Your task to perform on an android device: check out phone information Image 0: 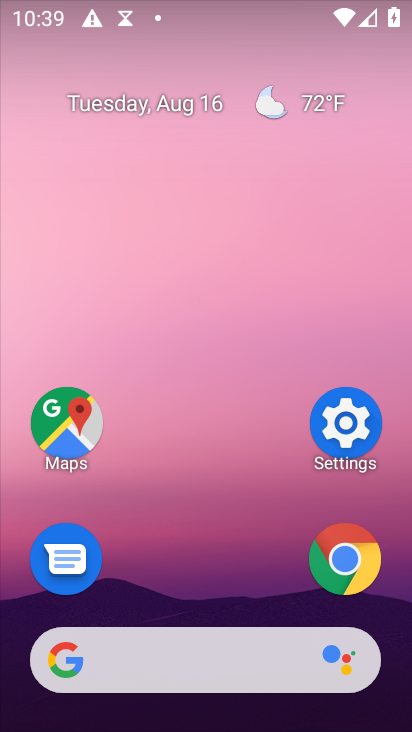
Step 0: click (344, 434)
Your task to perform on an android device: check out phone information Image 1: 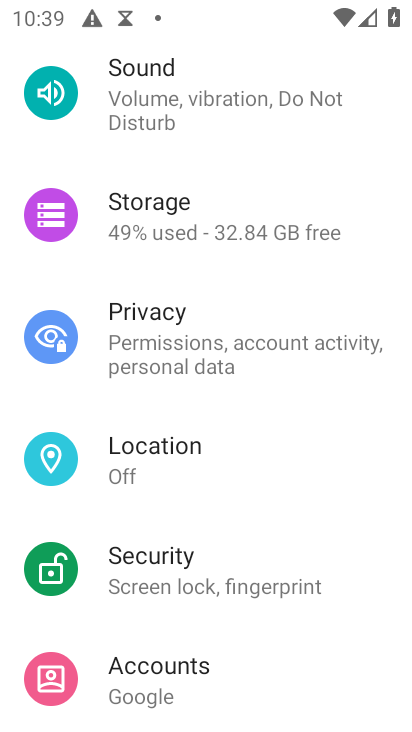
Step 1: drag from (266, 691) to (410, 102)
Your task to perform on an android device: check out phone information Image 2: 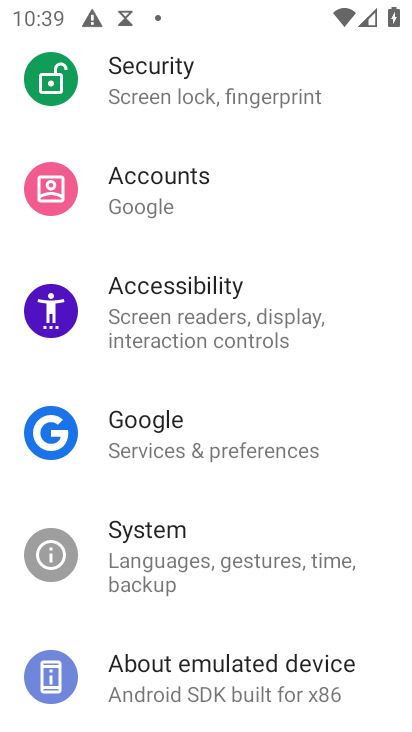
Step 2: drag from (232, 623) to (344, 59)
Your task to perform on an android device: check out phone information Image 3: 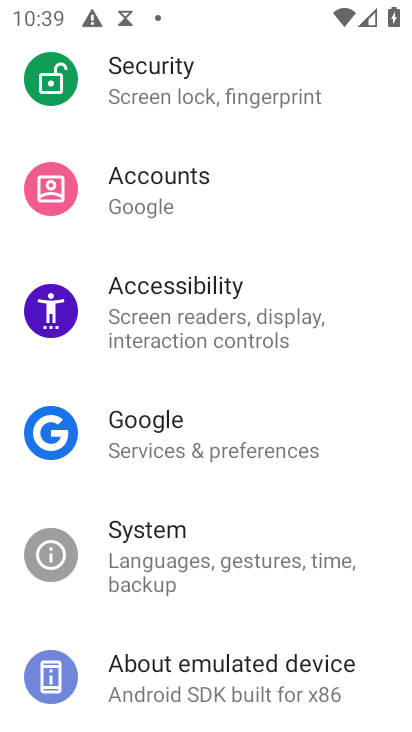
Step 3: click (175, 673)
Your task to perform on an android device: check out phone information Image 4: 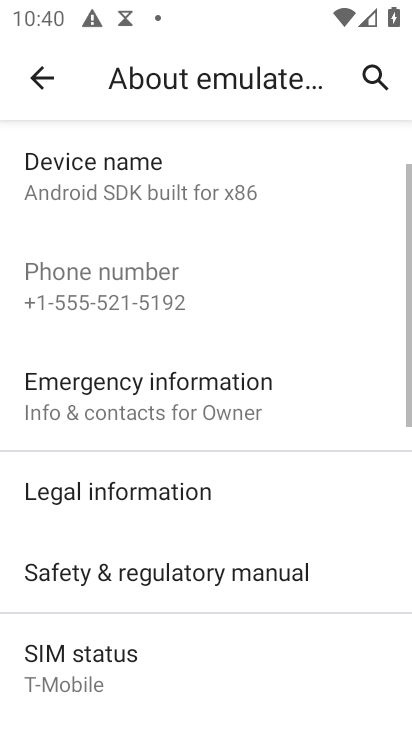
Step 4: task complete